Your task to perform on an android device: Go to Reddit.com Image 0: 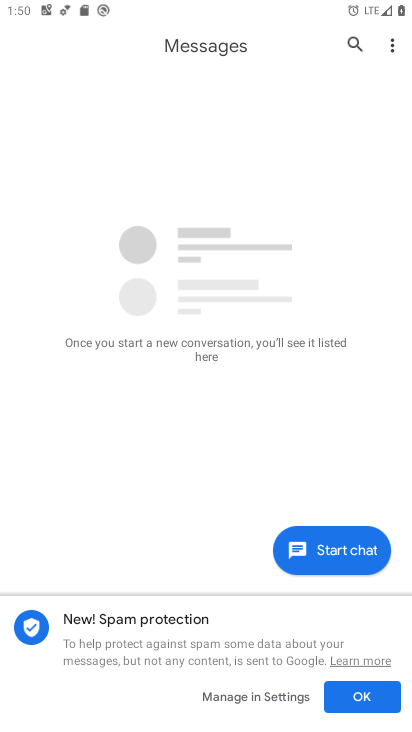
Step 0: press home button
Your task to perform on an android device: Go to Reddit.com Image 1: 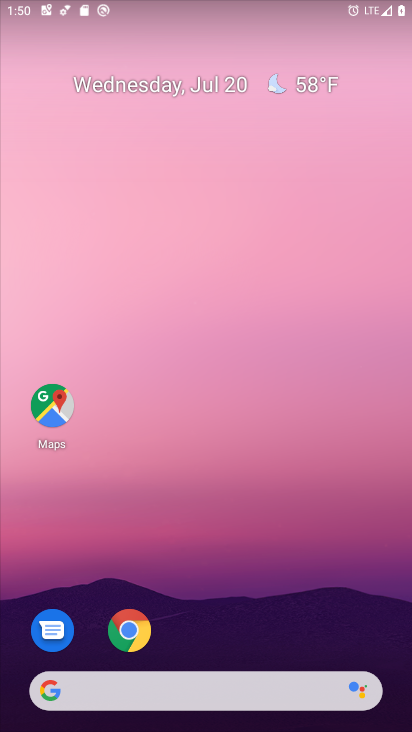
Step 1: drag from (227, 544) to (293, 117)
Your task to perform on an android device: Go to Reddit.com Image 2: 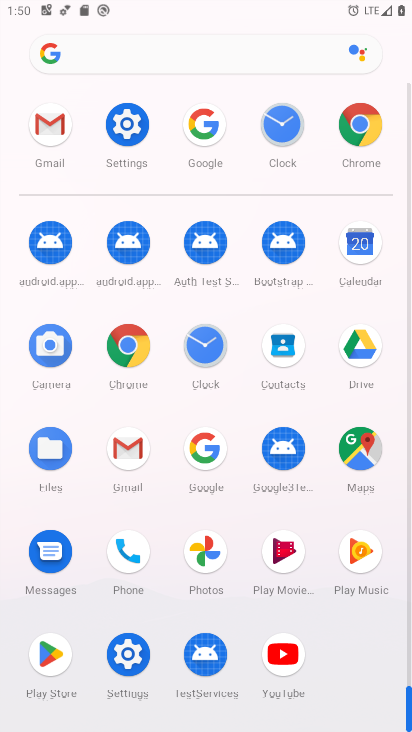
Step 2: click (340, 147)
Your task to perform on an android device: Go to Reddit.com Image 3: 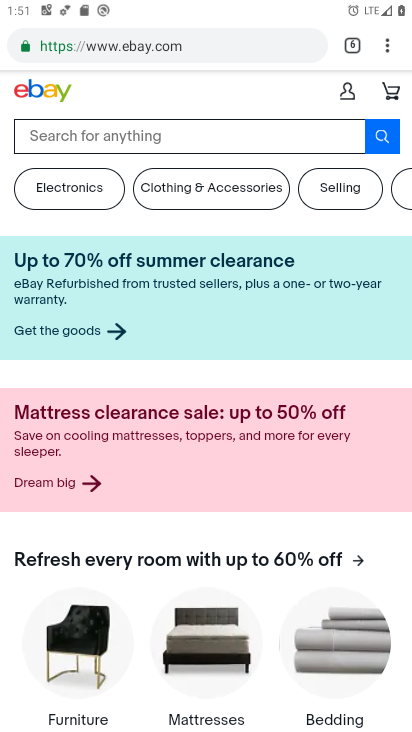
Step 3: click (224, 55)
Your task to perform on an android device: Go to Reddit.com Image 4: 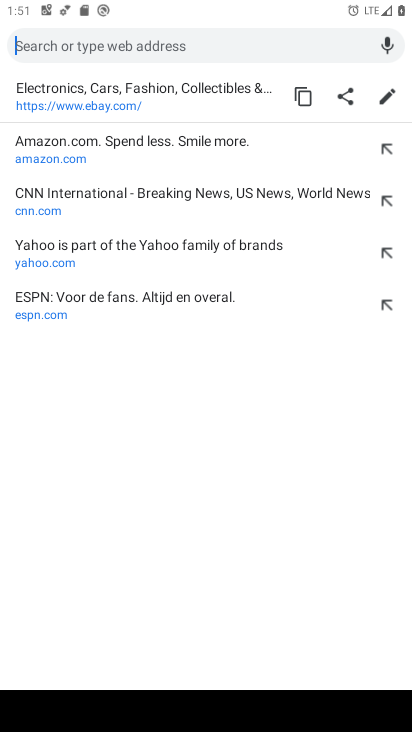
Step 4: type "reddit"
Your task to perform on an android device: Go to Reddit.com Image 5: 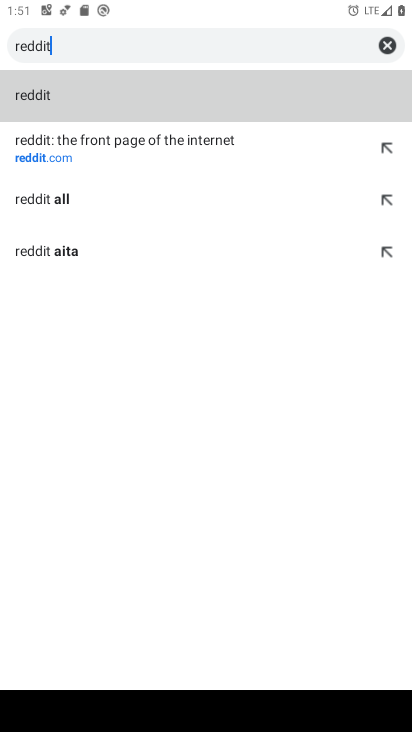
Step 5: click (202, 146)
Your task to perform on an android device: Go to Reddit.com Image 6: 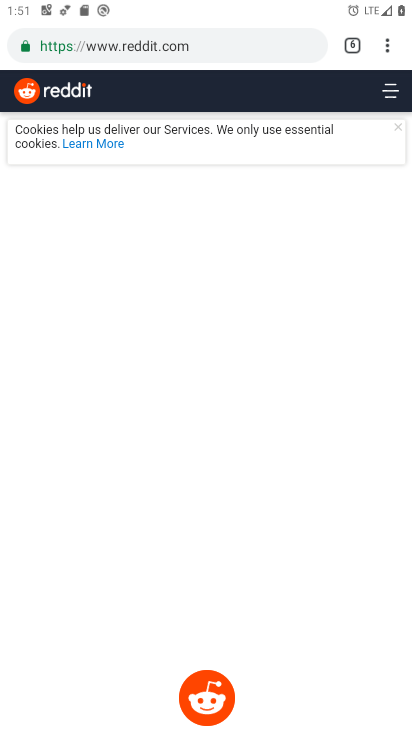
Step 6: task complete